Your task to perform on an android device: turn off location history Image 0: 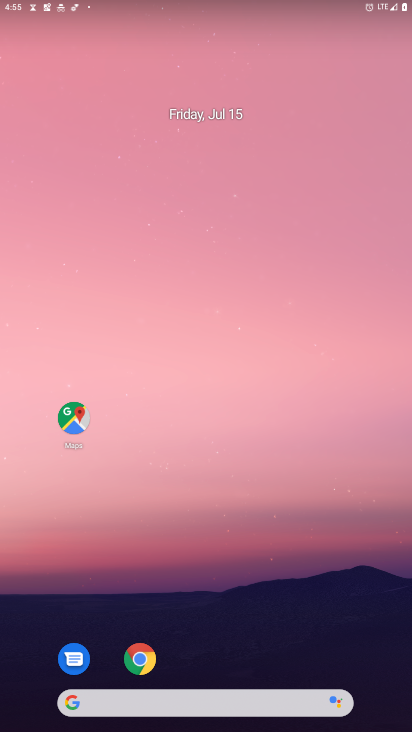
Step 0: drag from (181, 710) to (146, 139)
Your task to perform on an android device: turn off location history Image 1: 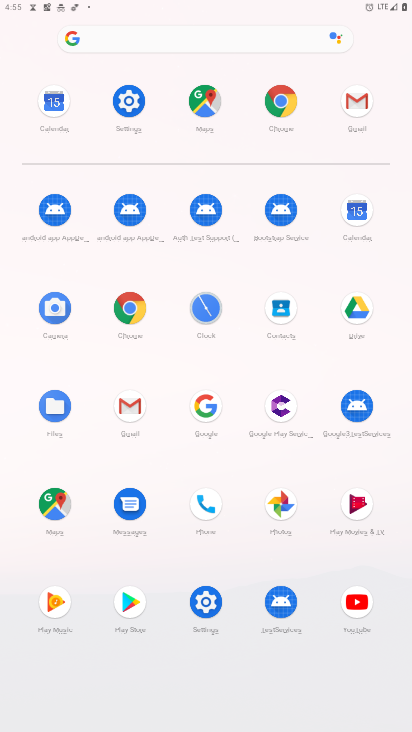
Step 1: click (133, 111)
Your task to perform on an android device: turn off location history Image 2: 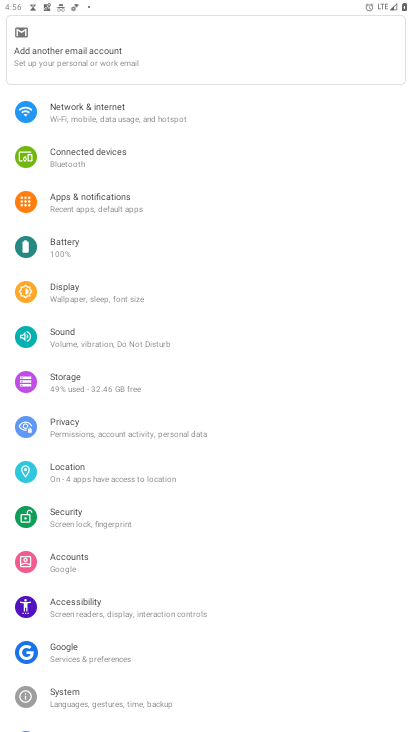
Step 2: click (72, 474)
Your task to perform on an android device: turn off location history Image 3: 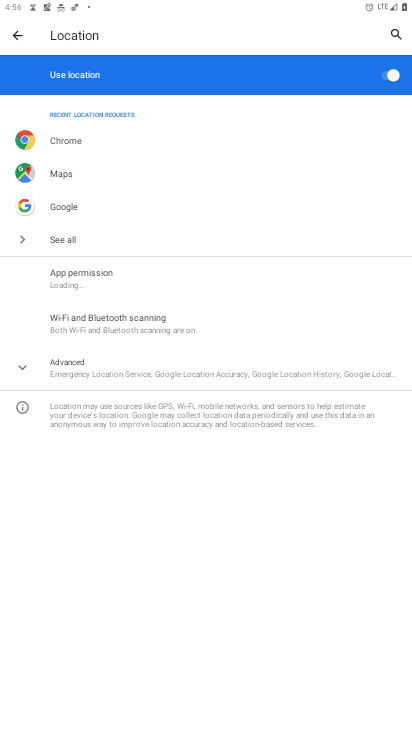
Step 3: click (97, 365)
Your task to perform on an android device: turn off location history Image 4: 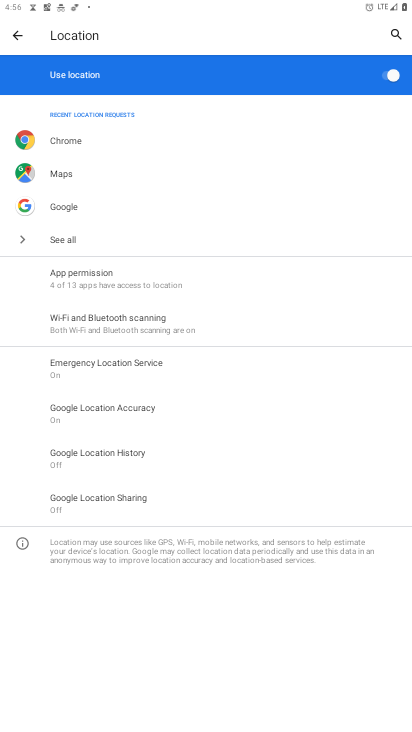
Step 4: click (129, 452)
Your task to perform on an android device: turn off location history Image 5: 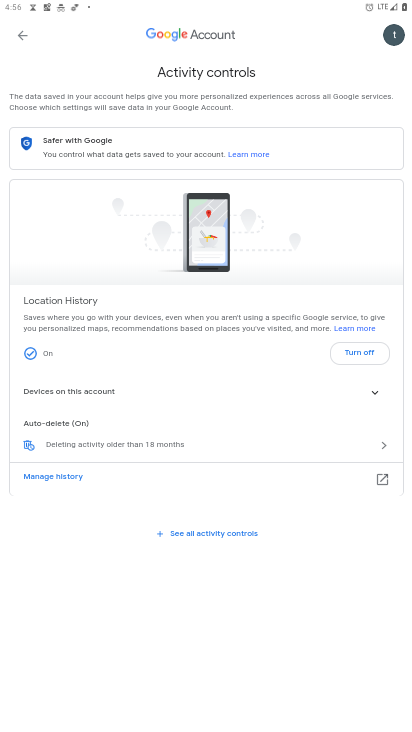
Step 5: task complete